Your task to perform on an android device: Open Chrome and go to settings Image 0: 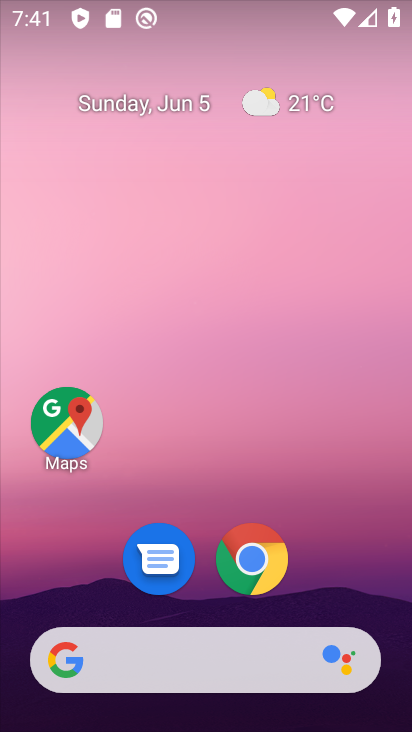
Step 0: click (256, 565)
Your task to perform on an android device: Open Chrome and go to settings Image 1: 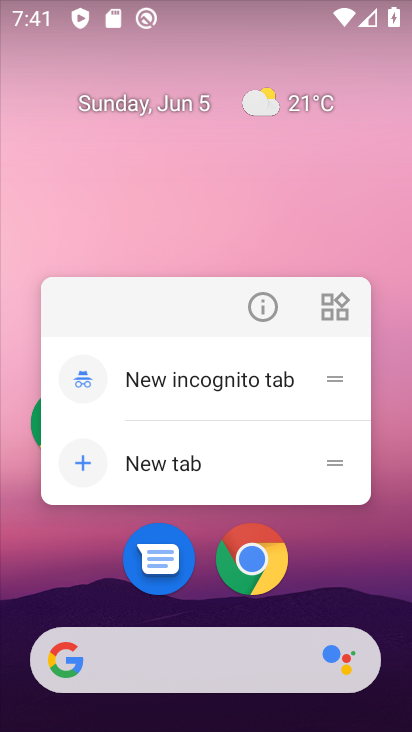
Step 1: click (255, 559)
Your task to perform on an android device: Open Chrome and go to settings Image 2: 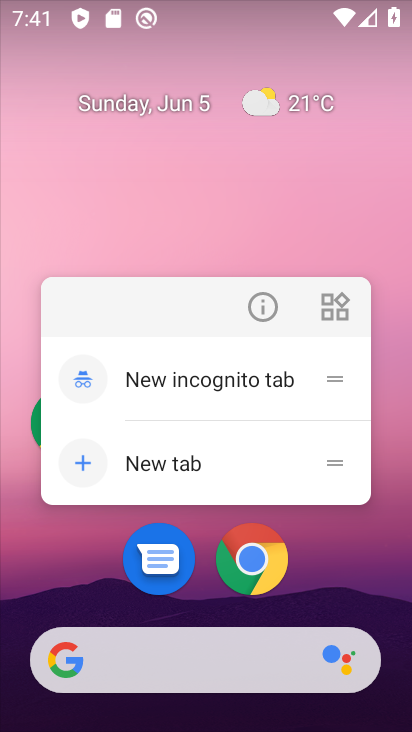
Step 2: click (255, 559)
Your task to perform on an android device: Open Chrome and go to settings Image 3: 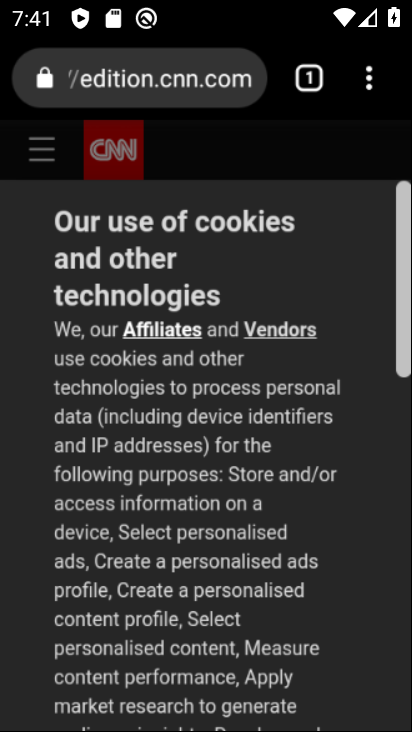
Step 3: task complete